Your task to perform on an android device: Search for seafood restaurants on Google Maps Image 0: 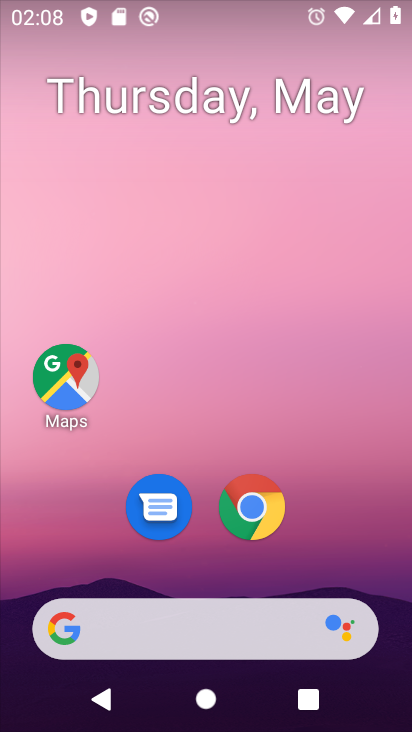
Step 0: click (73, 383)
Your task to perform on an android device: Search for seafood restaurants on Google Maps Image 1: 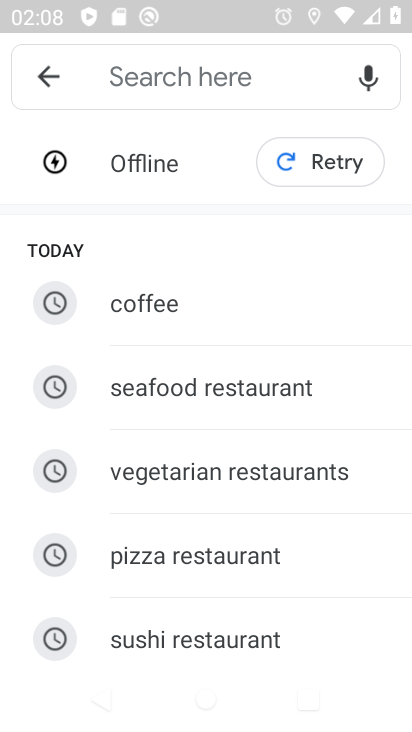
Step 1: click (259, 410)
Your task to perform on an android device: Search for seafood restaurants on Google Maps Image 2: 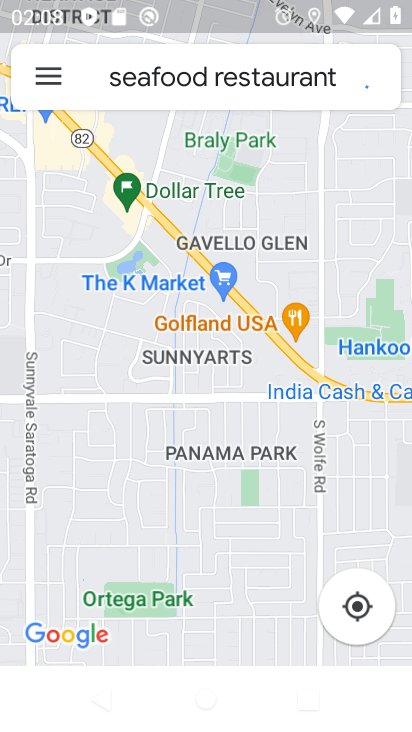
Step 2: task complete